Your task to perform on an android device: turn off location Image 0: 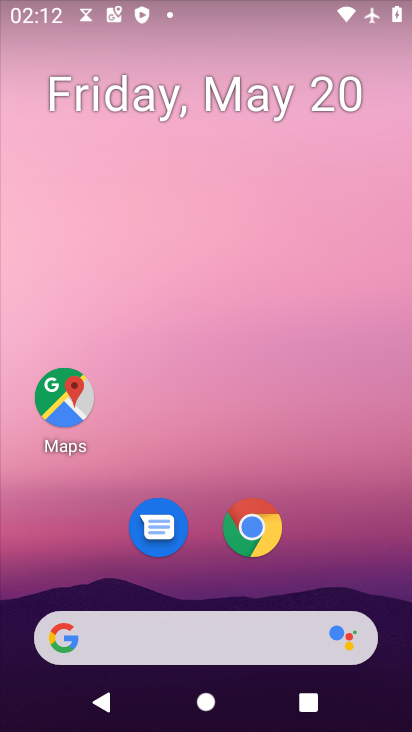
Step 0: press home button
Your task to perform on an android device: turn off location Image 1: 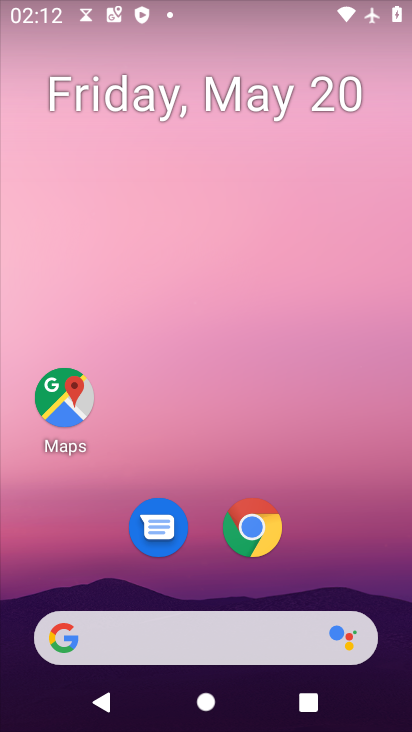
Step 1: drag from (170, 631) to (332, 64)
Your task to perform on an android device: turn off location Image 2: 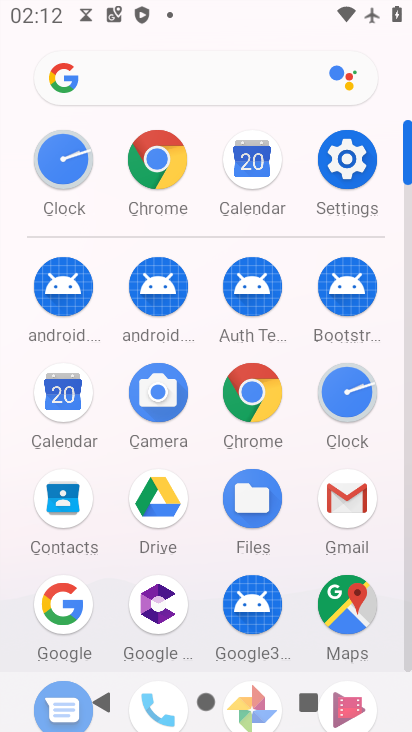
Step 2: click (342, 159)
Your task to perform on an android device: turn off location Image 3: 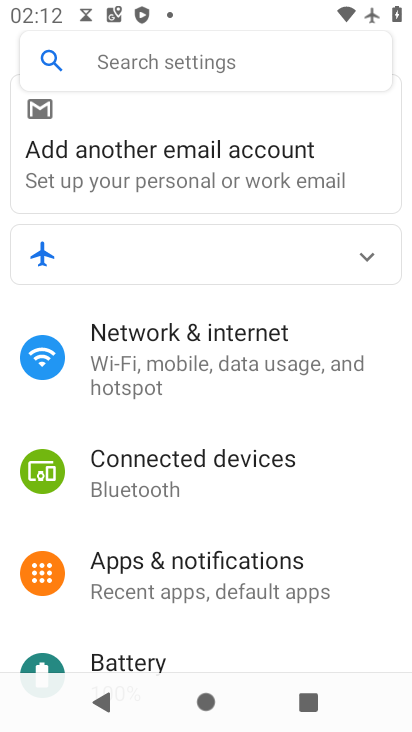
Step 3: drag from (255, 533) to (345, 94)
Your task to perform on an android device: turn off location Image 4: 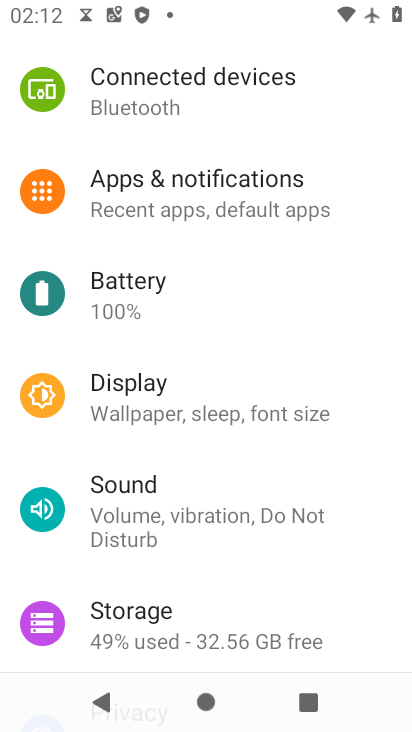
Step 4: drag from (263, 584) to (328, 206)
Your task to perform on an android device: turn off location Image 5: 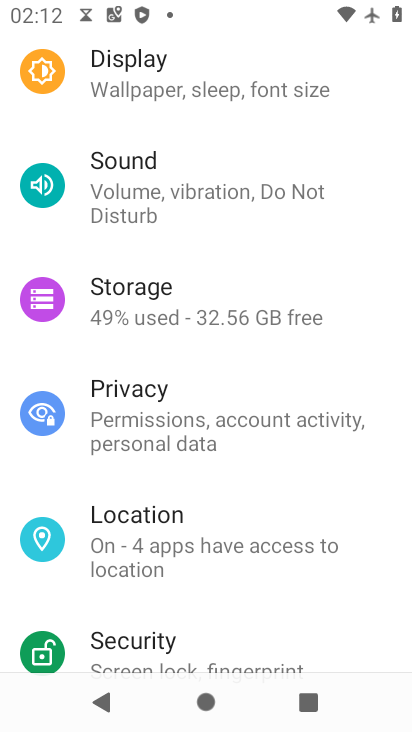
Step 5: click (163, 526)
Your task to perform on an android device: turn off location Image 6: 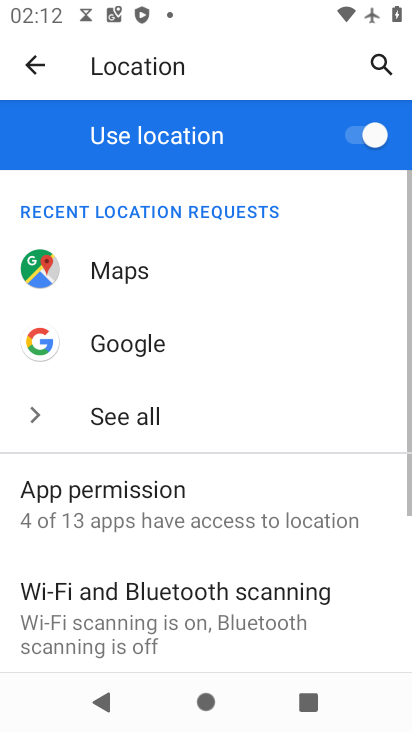
Step 6: click (350, 136)
Your task to perform on an android device: turn off location Image 7: 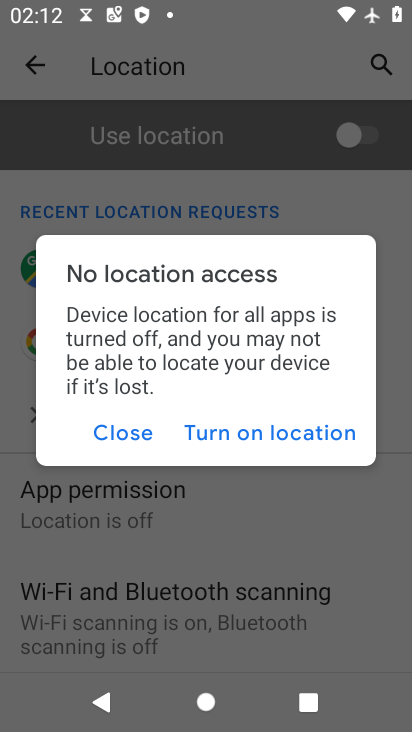
Step 7: click (151, 440)
Your task to perform on an android device: turn off location Image 8: 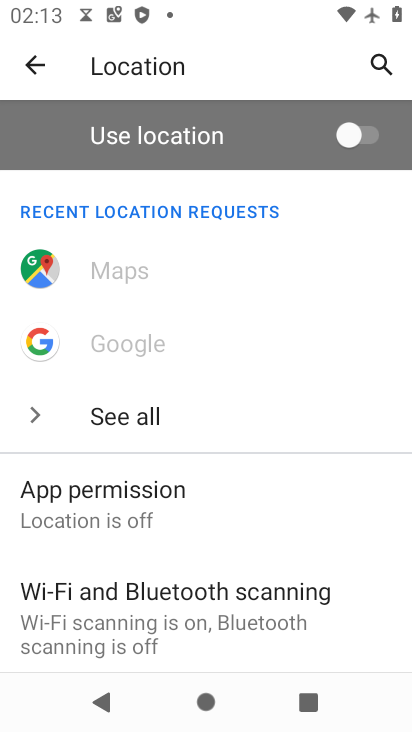
Step 8: task complete